Your task to perform on an android device: turn vacation reply on in the gmail app Image 0: 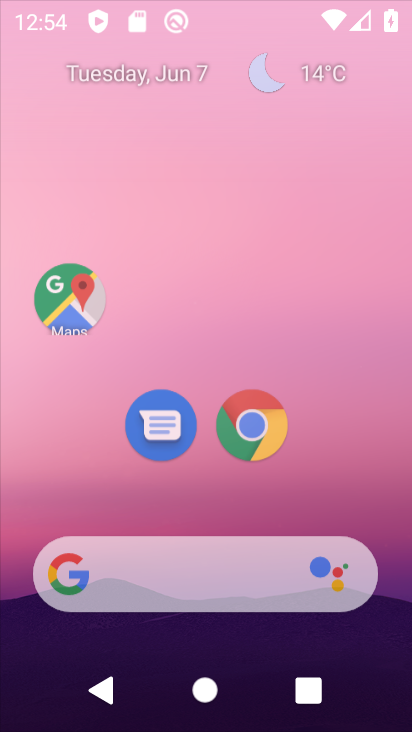
Step 0: drag from (335, 484) to (250, 13)
Your task to perform on an android device: turn vacation reply on in the gmail app Image 1: 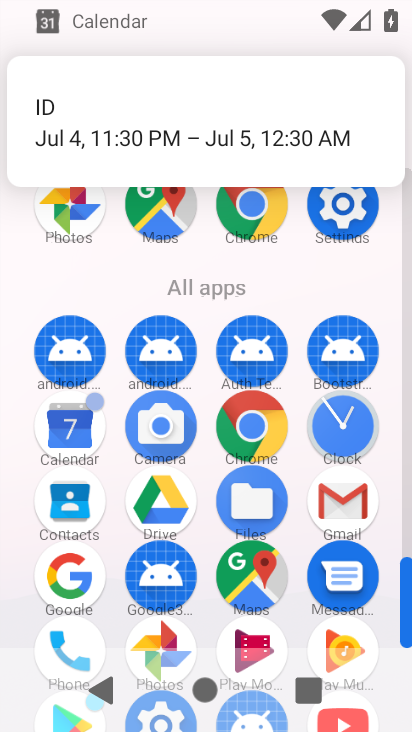
Step 1: drag from (7, 594) to (15, 335)
Your task to perform on an android device: turn vacation reply on in the gmail app Image 2: 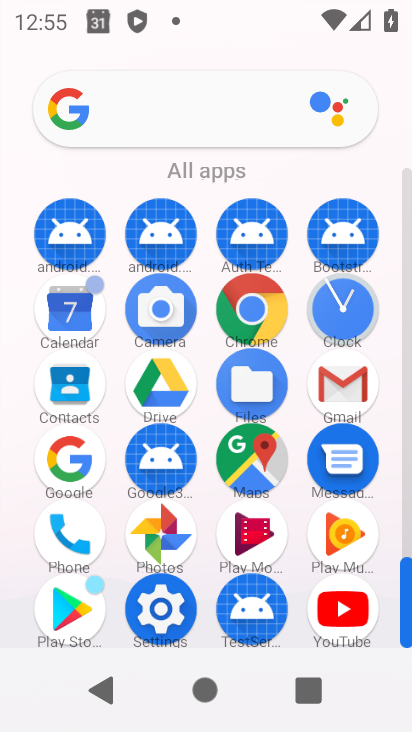
Step 2: click (339, 378)
Your task to perform on an android device: turn vacation reply on in the gmail app Image 3: 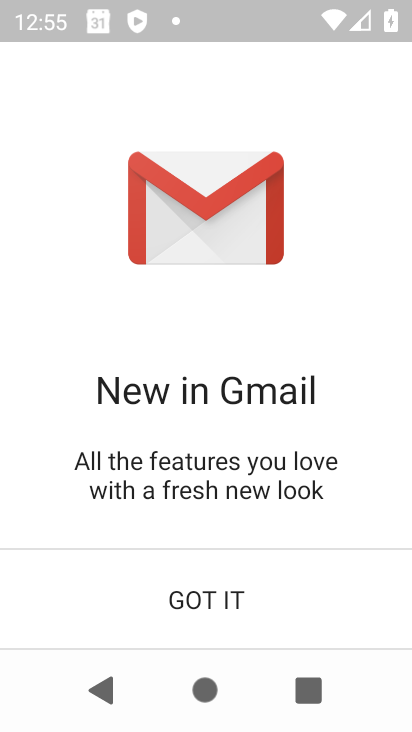
Step 3: click (212, 585)
Your task to perform on an android device: turn vacation reply on in the gmail app Image 4: 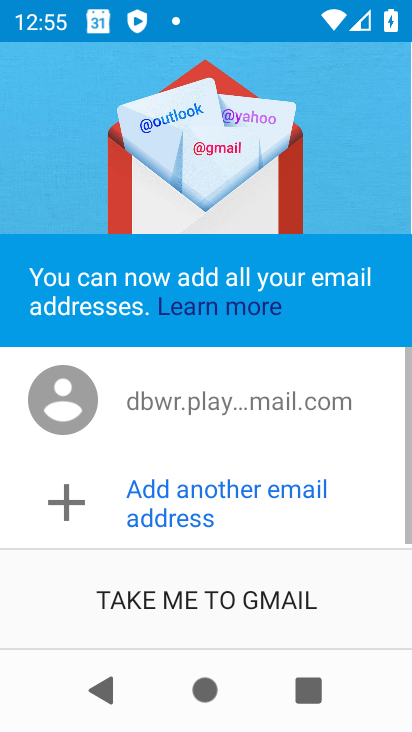
Step 4: click (212, 585)
Your task to perform on an android device: turn vacation reply on in the gmail app Image 5: 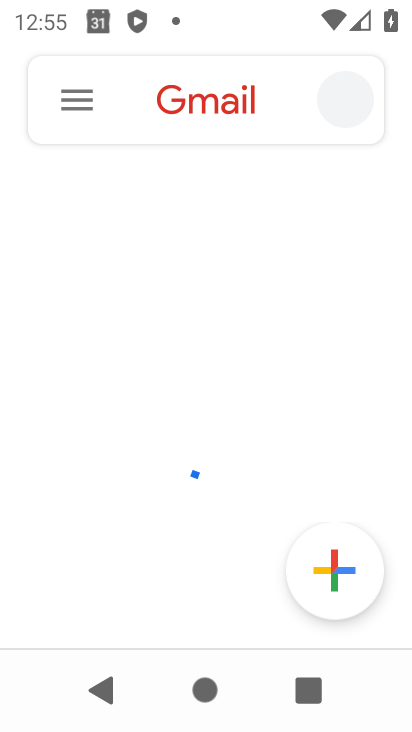
Step 5: click (77, 100)
Your task to perform on an android device: turn vacation reply on in the gmail app Image 6: 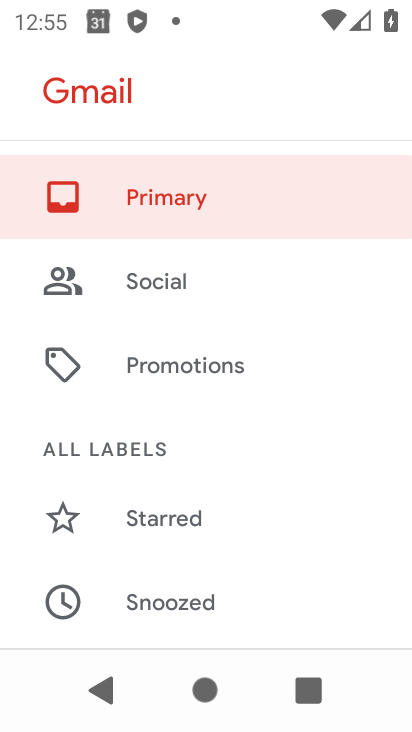
Step 6: drag from (230, 528) to (282, 170)
Your task to perform on an android device: turn vacation reply on in the gmail app Image 7: 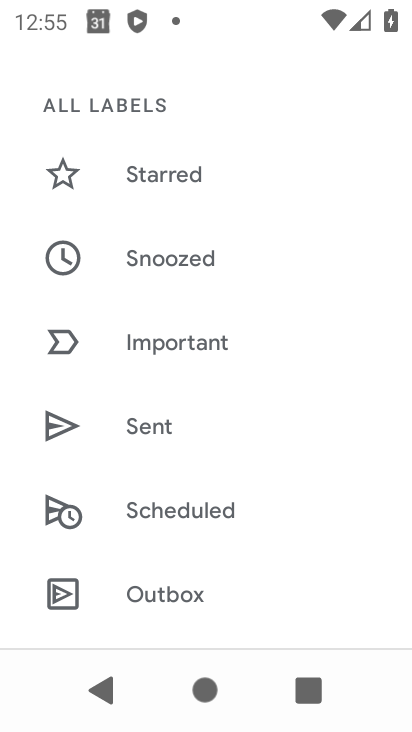
Step 7: drag from (254, 513) to (309, 102)
Your task to perform on an android device: turn vacation reply on in the gmail app Image 8: 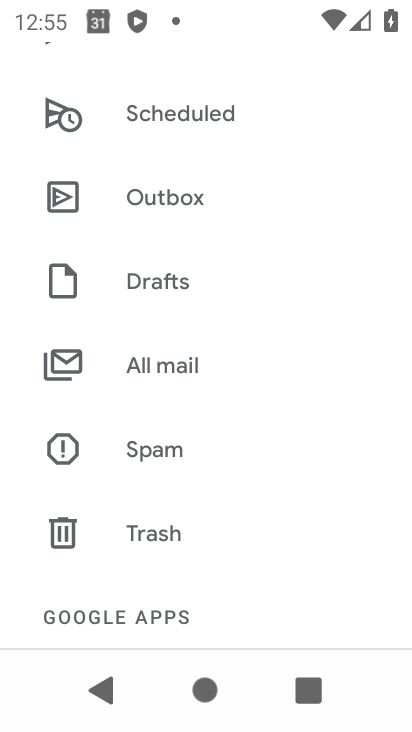
Step 8: drag from (241, 523) to (273, 168)
Your task to perform on an android device: turn vacation reply on in the gmail app Image 9: 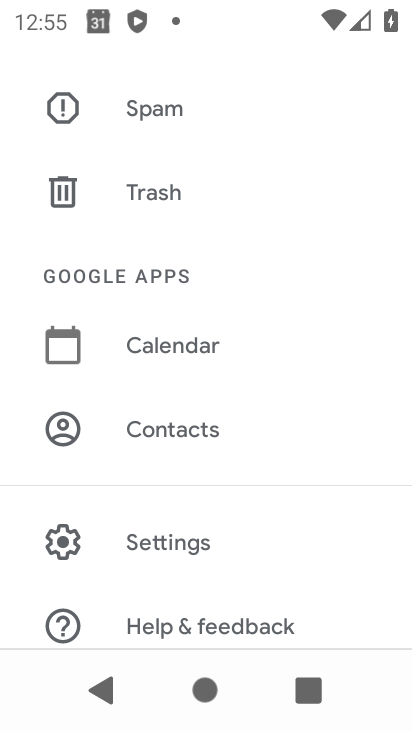
Step 9: click (197, 521)
Your task to perform on an android device: turn vacation reply on in the gmail app Image 10: 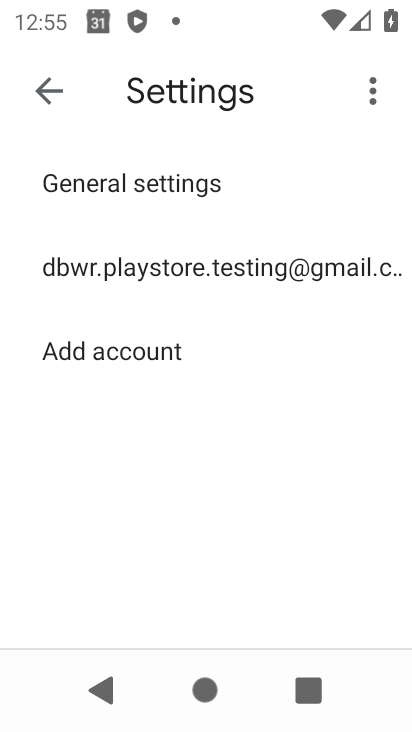
Step 10: click (191, 258)
Your task to perform on an android device: turn vacation reply on in the gmail app Image 11: 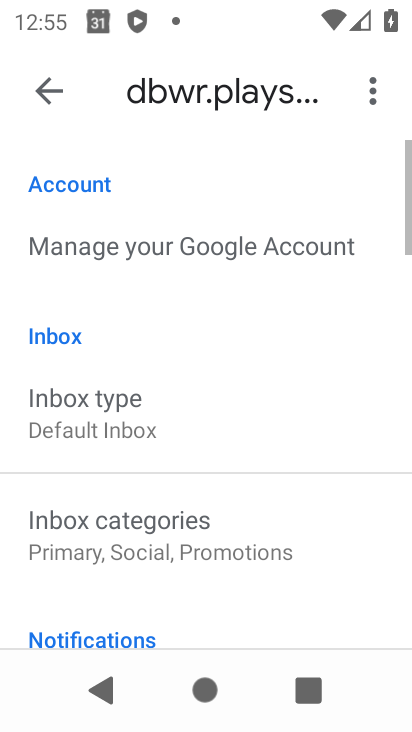
Step 11: drag from (232, 589) to (297, 191)
Your task to perform on an android device: turn vacation reply on in the gmail app Image 12: 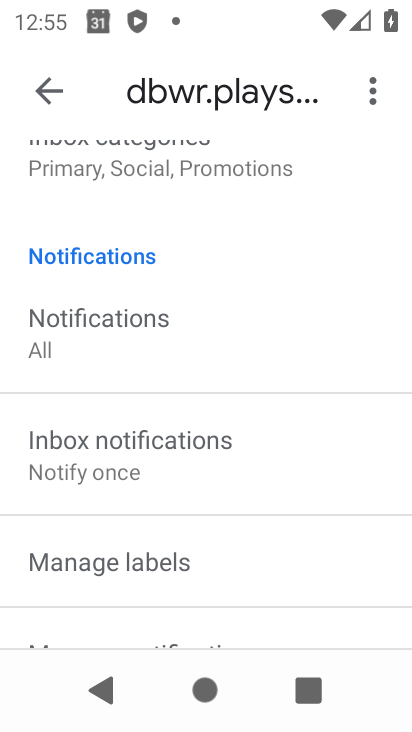
Step 12: drag from (257, 534) to (285, 161)
Your task to perform on an android device: turn vacation reply on in the gmail app Image 13: 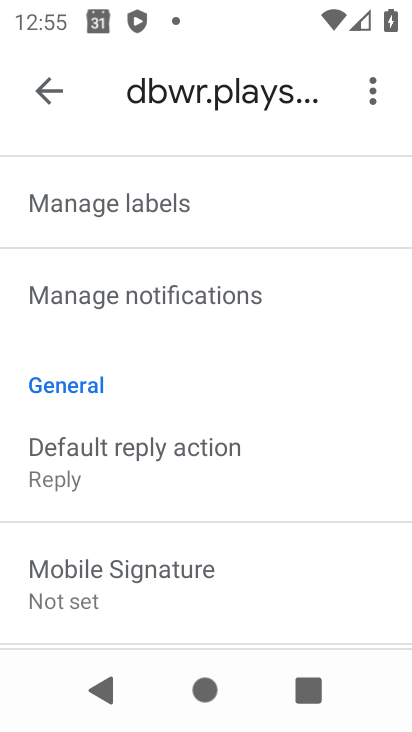
Step 13: drag from (271, 542) to (316, 163)
Your task to perform on an android device: turn vacation reply on in the gmail app Image 14: 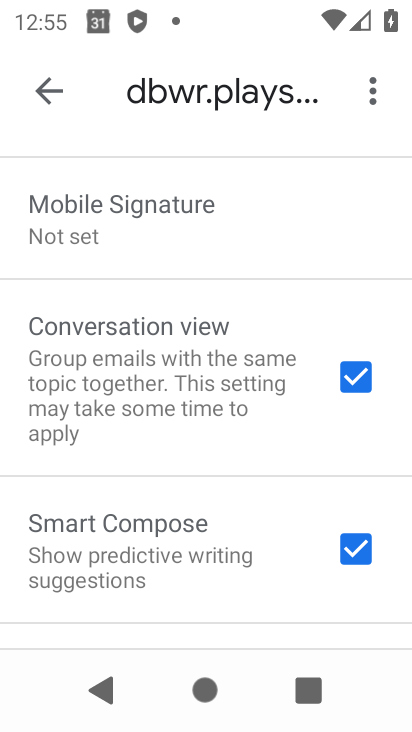
Step 14: drag from (182, 560) to (220, 160)
Your task to perform on an android device: turn vacation reply on in the gmail app Image 15: 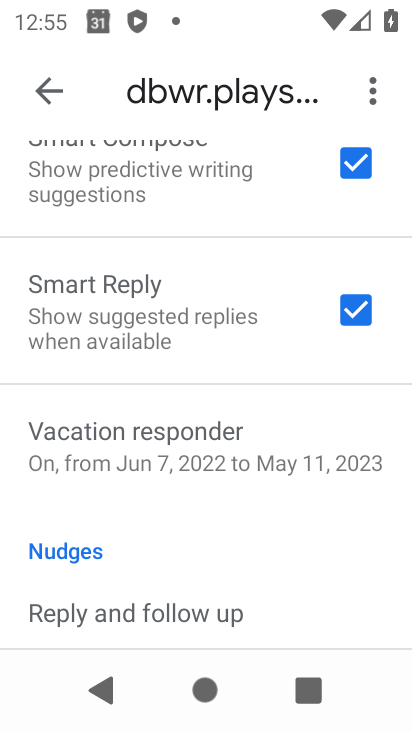
Step 15: drag from (218, 524) to (228, 191)
Your task to perform on an android device: turn vacation reply on in the gmail app Image 16: 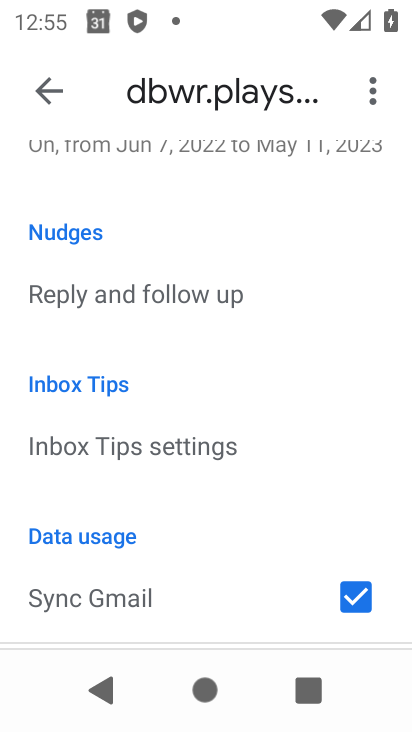
Step 16: drag from (174, 547) to (217, 205)
Your task to perform on an android device: turn vacation reply on in the gmail app Image 17: 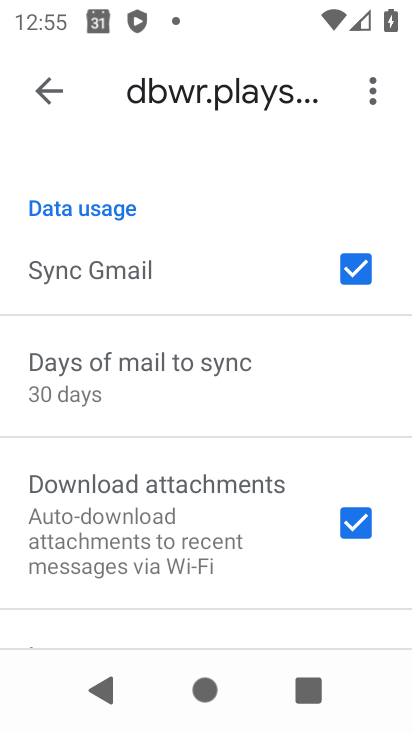
Step 17: drag from (186, 516) to (215, 162)
Your task to perform on an android device: turn vacation reply on in the gmail app Image 18: 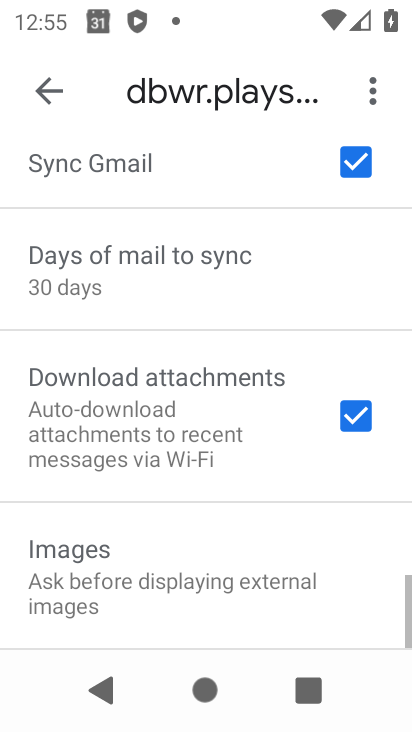
Step 18: drag from (205, 558) to (205, 240)
Your task to perform on an android device: turn vacation reply on in the gmail app Image 19: 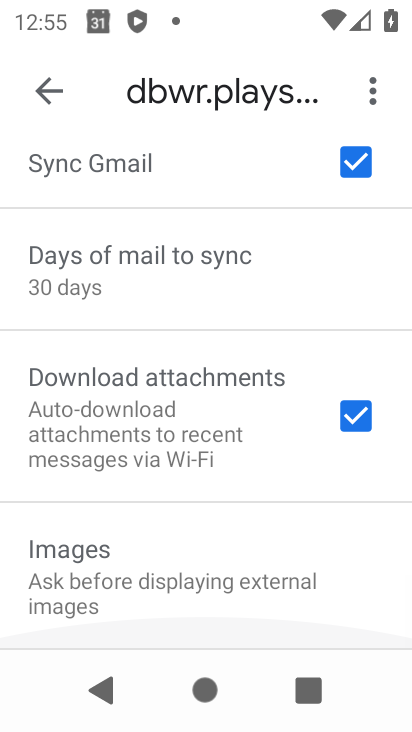
Step 19: drag from (221, 164) to (230, 603)
Your task to perform on an android device: turn vacation reply on in the gmail app Image 20: 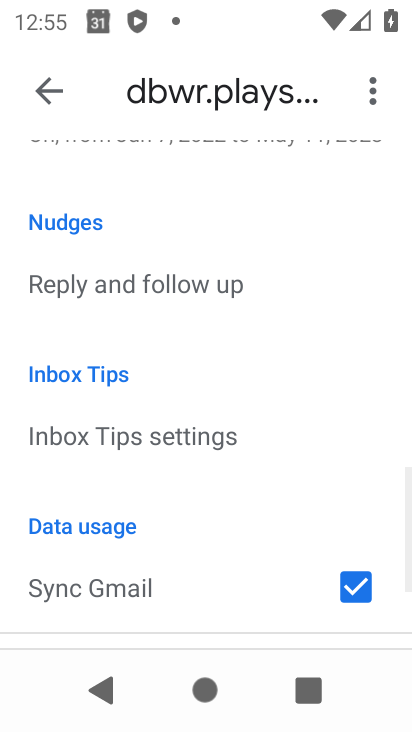
Step 20: drag from (229, 223) to (229, 594)
Your task to perform on an android device: turn vacation reply on in the gmail app Image 21: 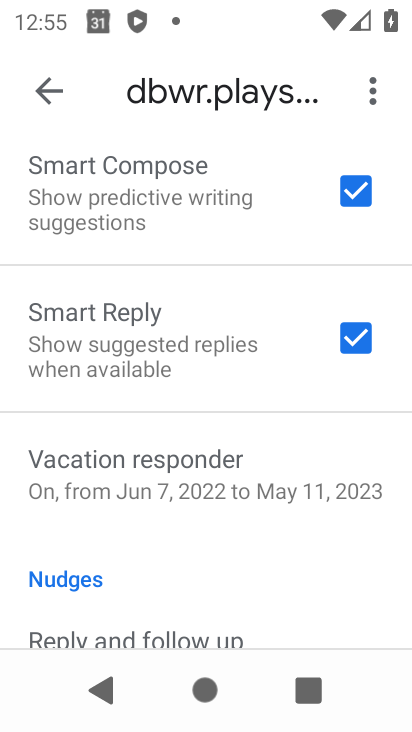
Step 21: click (199, 480)
Your task to perform on an android device: turn vacation reply on in the gmail app Image 22: 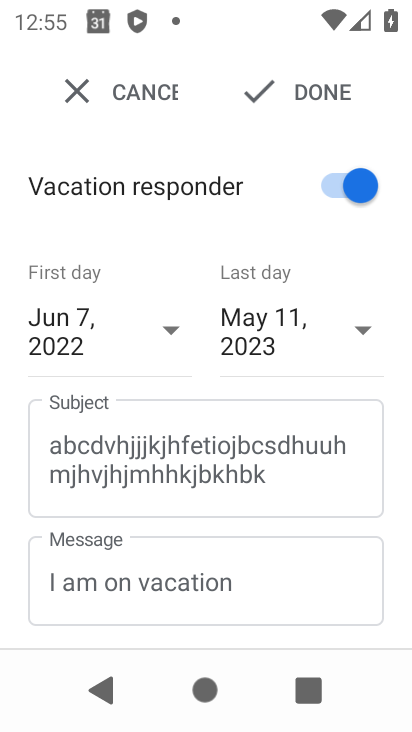
Step 22: click (336, 78)
Your task to perform on an android device: turn vacation reply on in the gmail app Image 23: 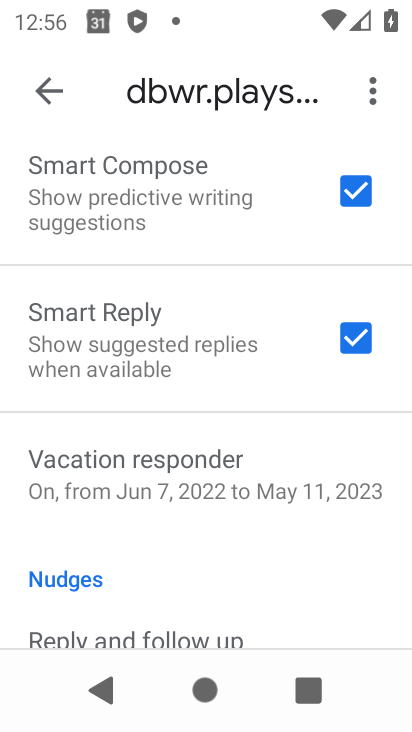
Step 23: task complete